Your task to perform on an android device: Open privacy settings Image 0: 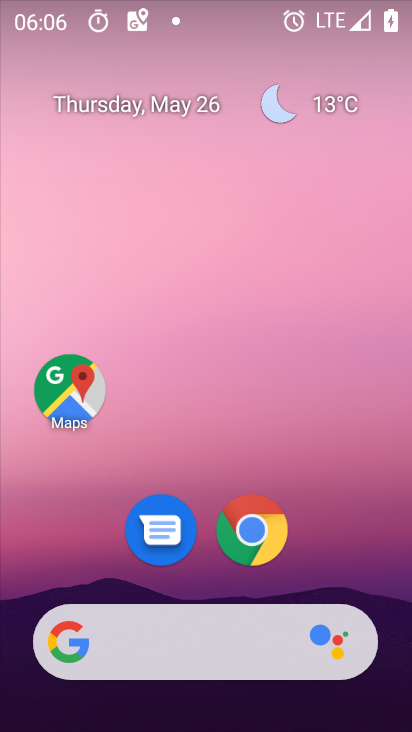
Step 0: drag from (229, 649) to (231, 31)
Your task to perform on an android device: Open privacy settings Image 1: 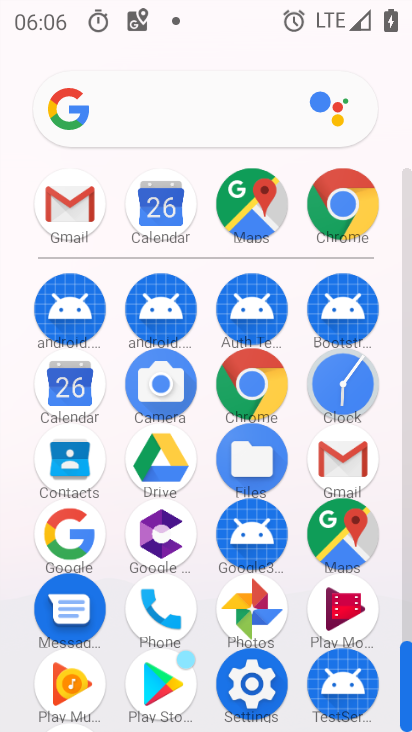
Step 1: click (271, 685)
Your task to perform on an android device: Open privacy settings Image 2: 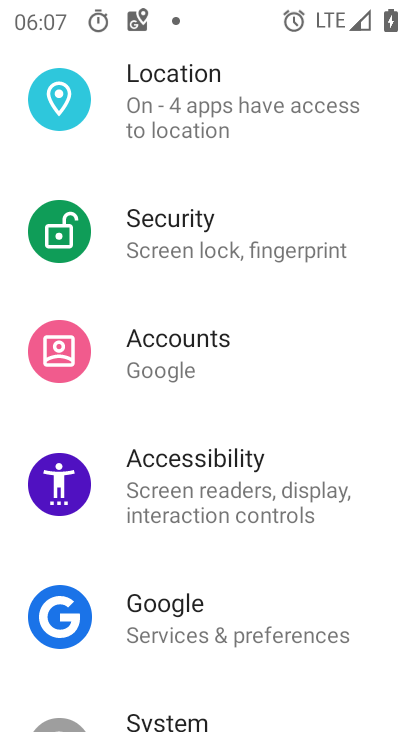
Step 2: drag from (300, 275) to (282, 706)
Your task to perform on an android device: Open privacy settings Image 3: 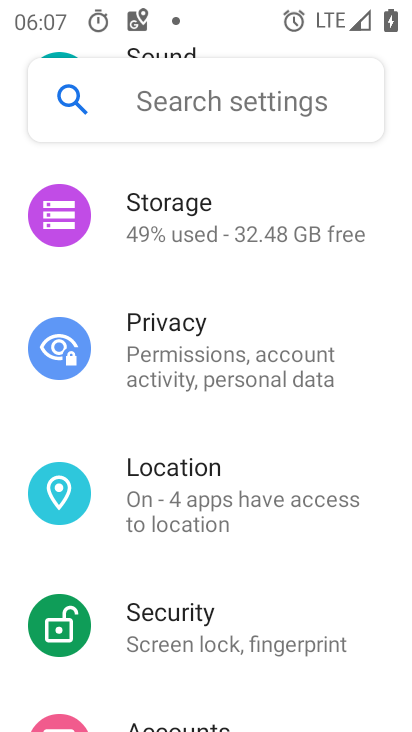
Step 3: click (249, 370)
Your task to perform on an android device: Open privacy settings Image 4: 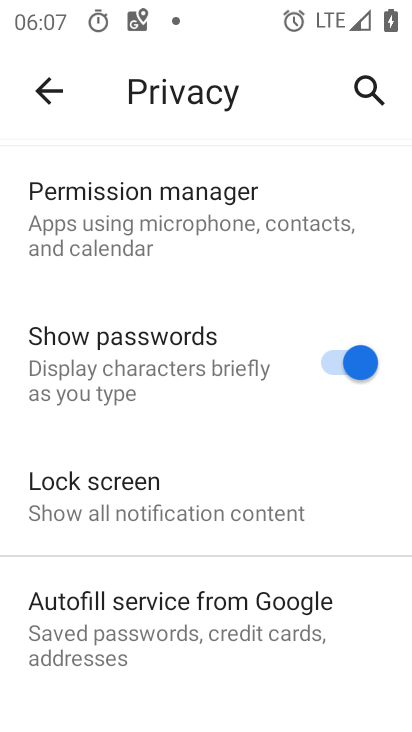
Step 4: task complete